Your task to perform on an android device: turn off location history Image 0: 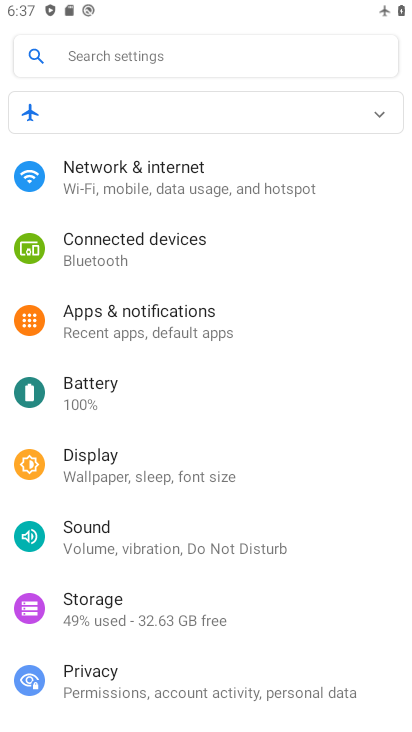
Step 0: press home button
Your task to perform on an android device: turn off location history Image 1: 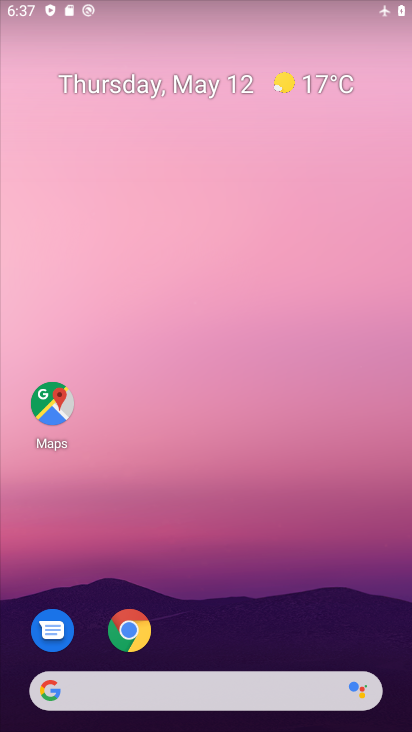
Step 1: drag from (284, 643) to (118, 99)
Your task to perform on an android device: turn off location history Image 2: 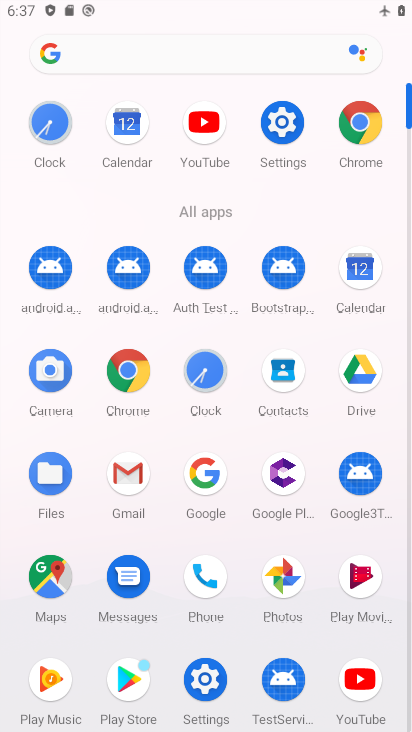
Step 2: click (278, 130)
Your task to perform on an android device: turn off location history Image 3: 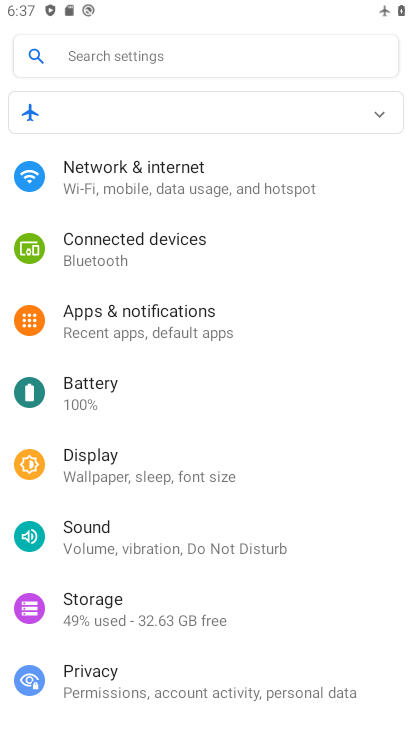
Step 3: drag from (129, 645) to (176, 371)
Your task to perform on an android device: turn off location history Image 4: 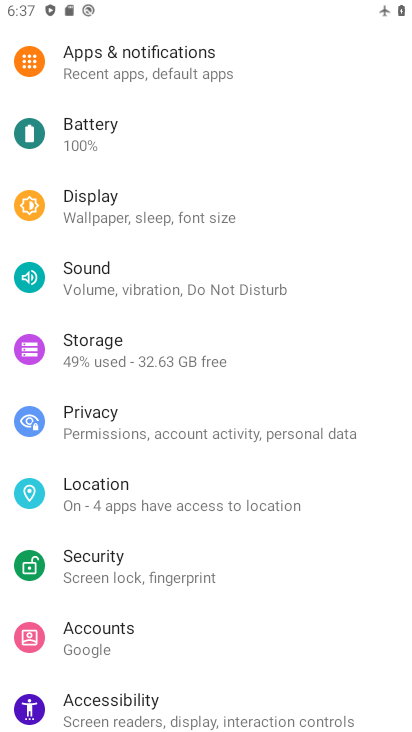
Step 4: click (122, 530)
Your task to perform on an android device: turn off location history Image 5: 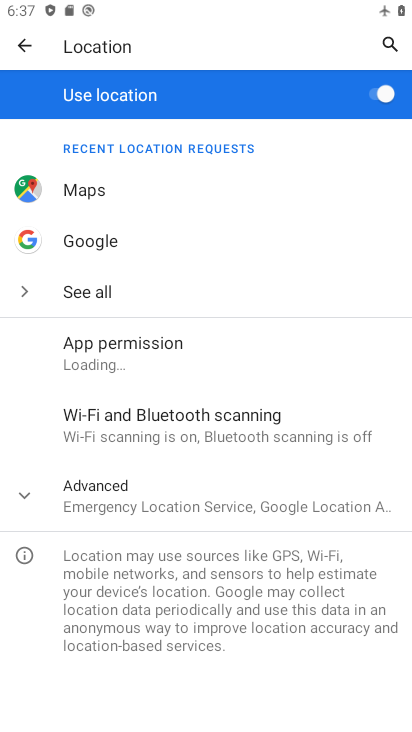
Step 5: click (33, 503)
Your task to perform on an android device: turn off location history Image 6: 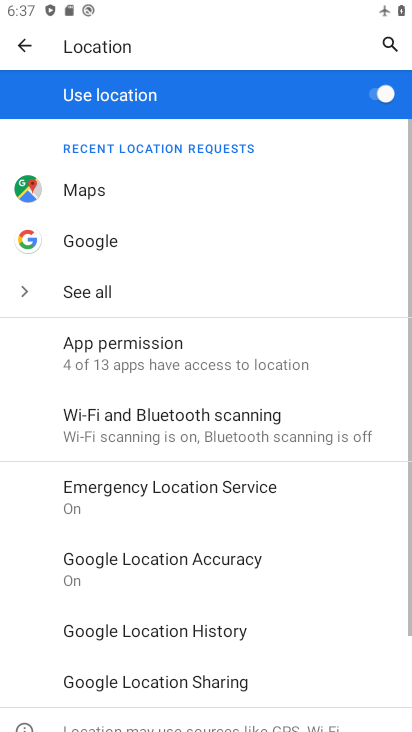
Step 6: click (193, 632)
Your task to perform on an android device: turn off location history Image 7: 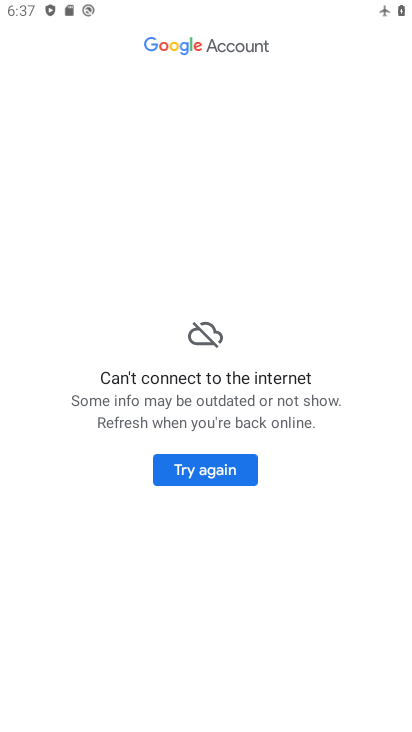
Step 7: task complete